Your task to perform on an android device: open a new tab in the chrome app Image 0: 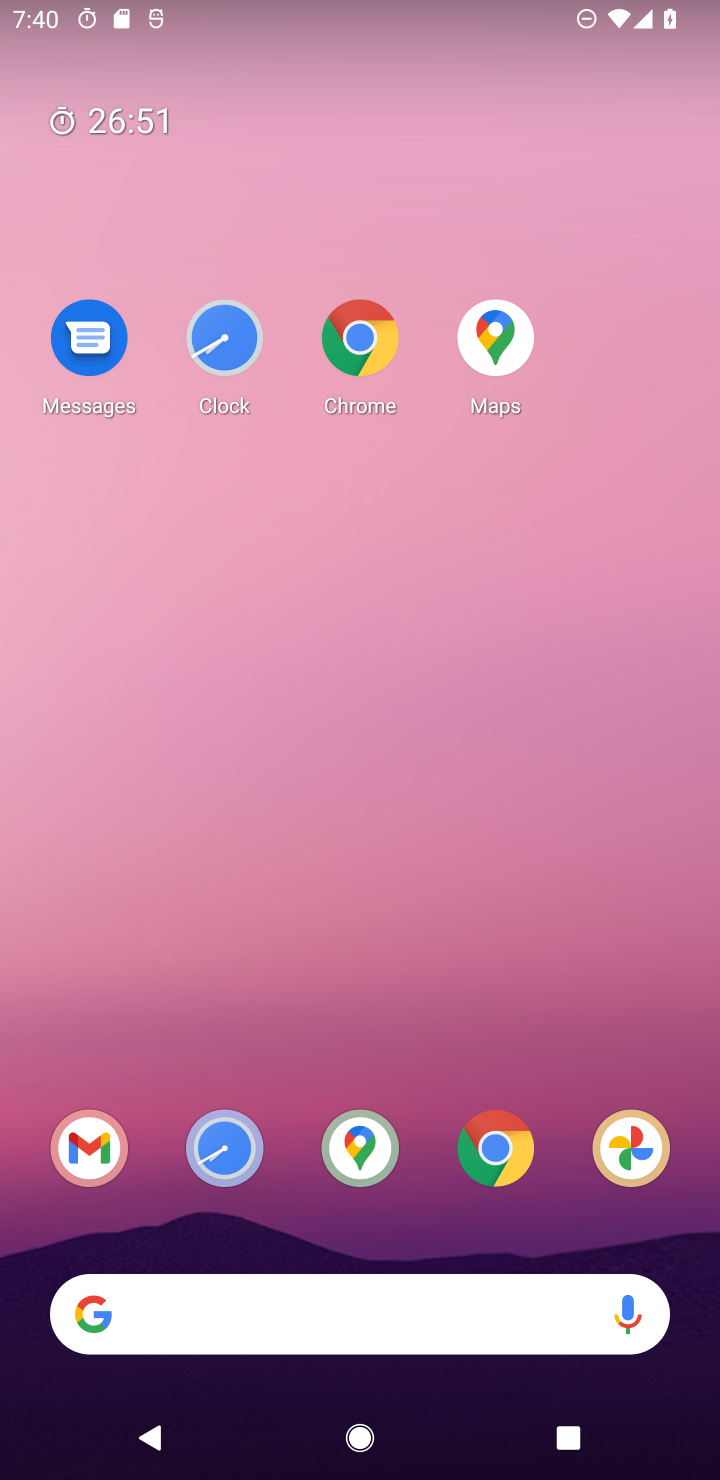
Step 0: drag from (419, 1059) to (509, 310)
Your task to perform on an android device: open a new tab in the chrome app Image 1: 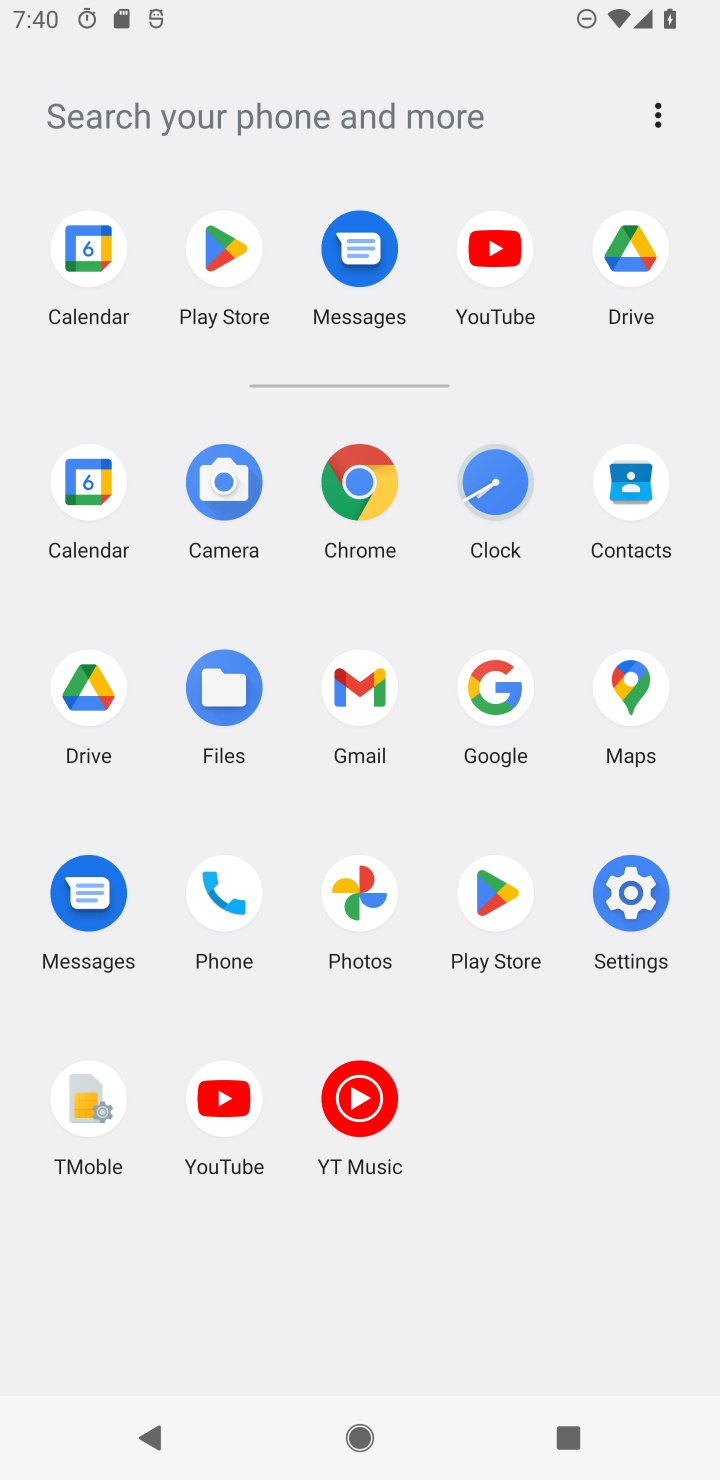
Step 1: click (381, 463)
Your task to perform on an android device: open a new tab in the chrome app Image 2: 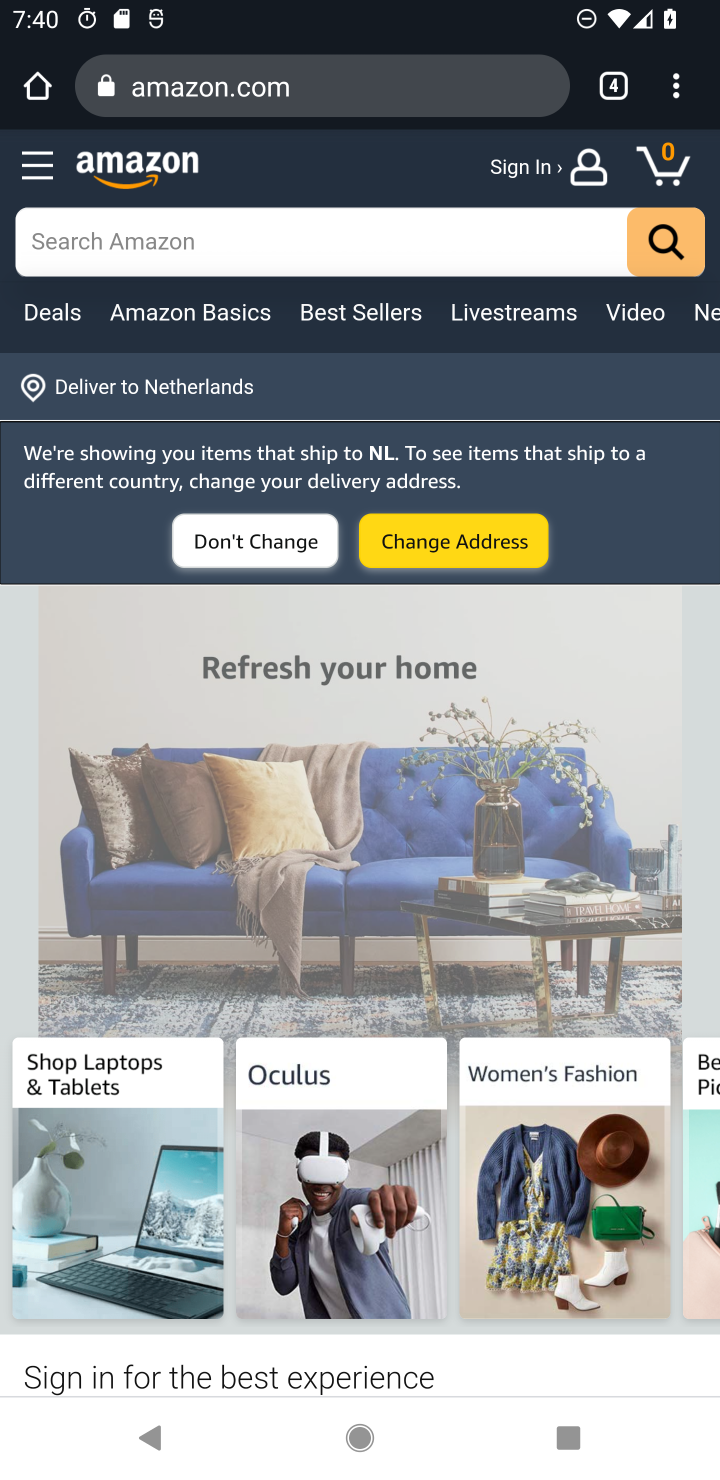
Step 2: task complete